Your task to perform on an android device: Open the calendar and show me this week's events? Image 0: 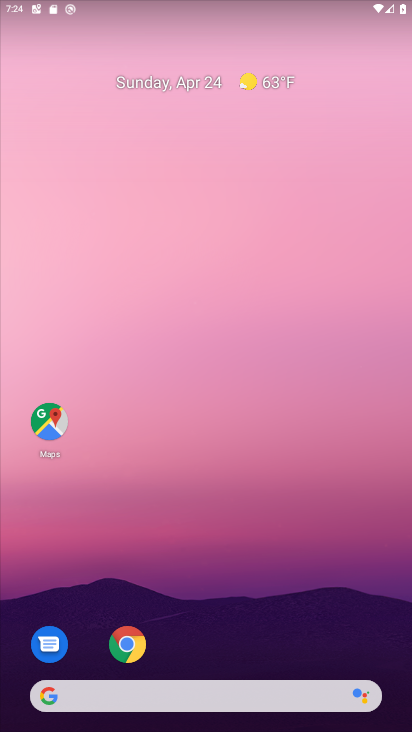
Step 0: drag from (218, 656) to (241, 172)
Your task to perform on an android device: Open the calendar and show me this week's events? Image 1: 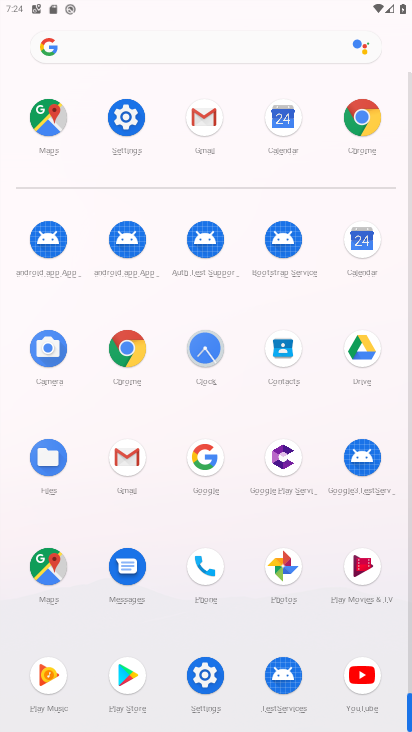
Step 1: click (361, 239)
Your task to perform on an android device: Open the calendar and show me this week's events? Image 2: 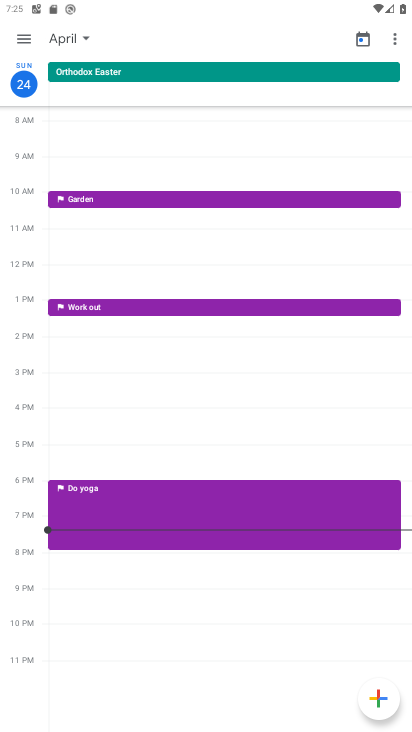
Step 2: click (20, 37)
Your task to perform on an android device: Open the calendar and show me this week's events? Image 3: 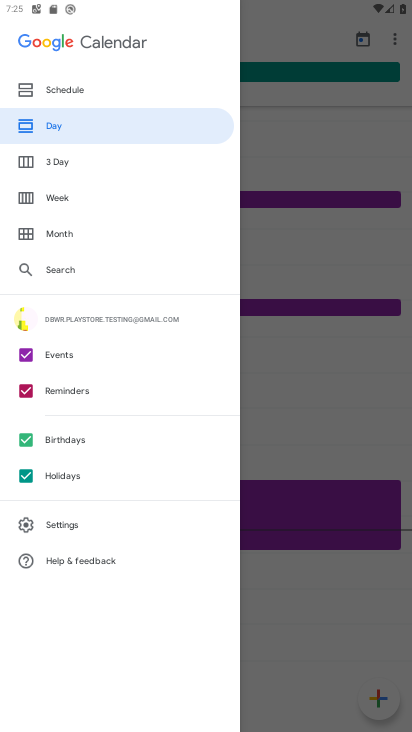
Step 3: click (45, 197)
Your task to perform on an android device: Open the calendar and show me this week's events? Image 4: 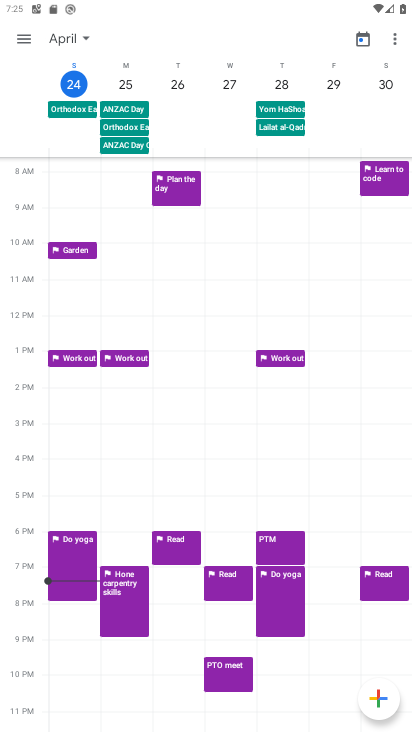
Step 4: click (74, 86)
Your task to perform on an android device: Open the calendar and show me this week's events? Image 5: 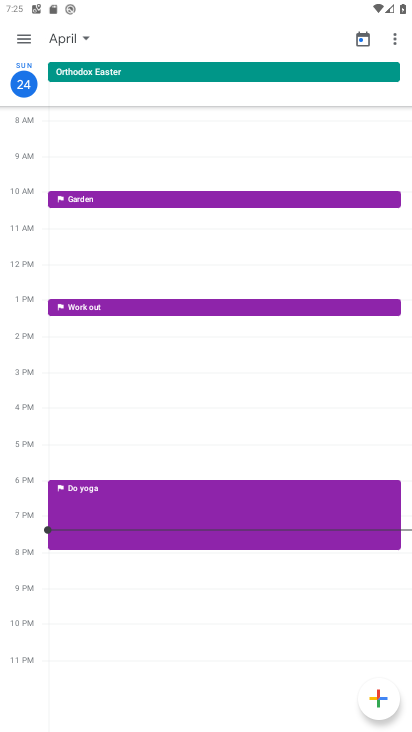
Step 5: click (33, 87)
Your task to perform on an android device: Open the calendar and show me this week's events? Image 6: 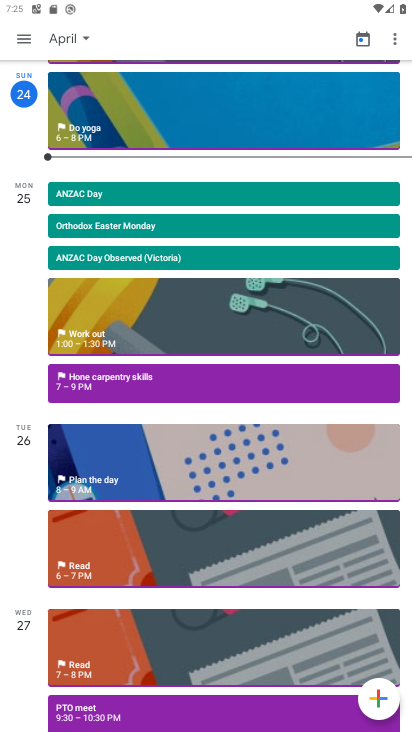
Step 6: task complete